Your task to perform on an android device: choose inbox layout in the gmail app Image 0: 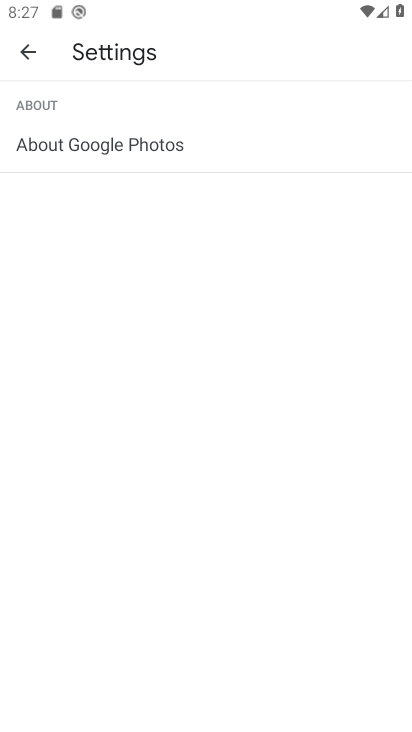
Step 0: press home button
Your task to perform on an android device: choose inbox layout in the gmail app Image 1: 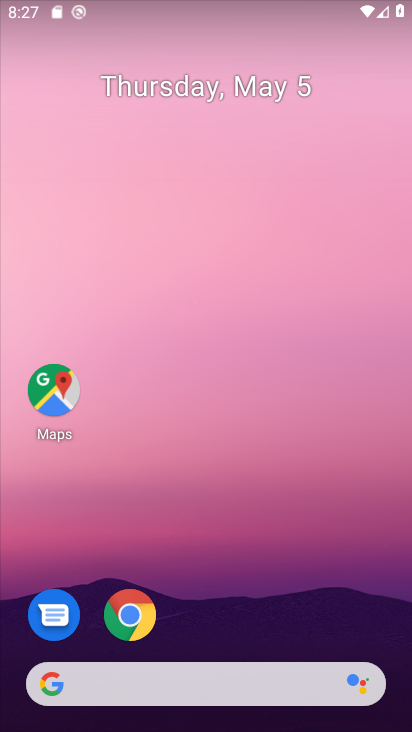
Step 1: drag from (194, 655) to (230, 314)
Your task to perform on an android device: choose inbox layout in the gmail app Image 2: 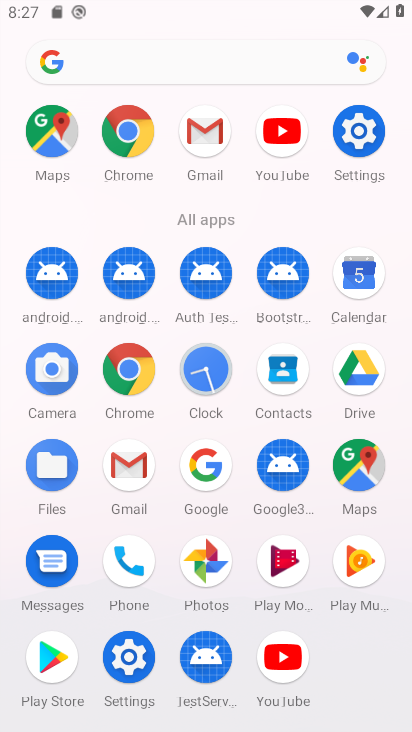
Step 2: click (207, 125)
Your task to perform on an android device: choose inbox layout in the gmail app Image 3: 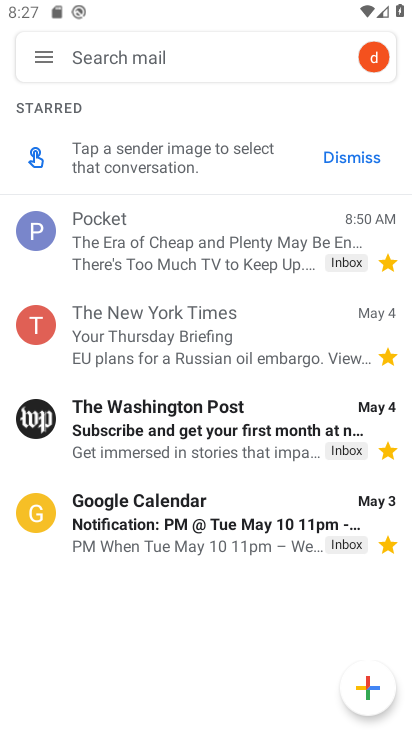
Step 3: click (39, 51)
Your task to perform on an android device: choose inbox layout in the gmail app Image 4: 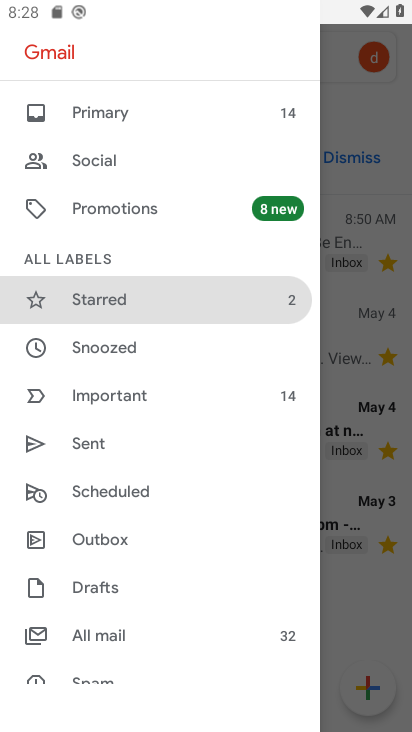
Step 4: drag from (106, 668) to (124, 256)
Your task to perform on an android device: choose inbox layout in the gmail app Image 5: 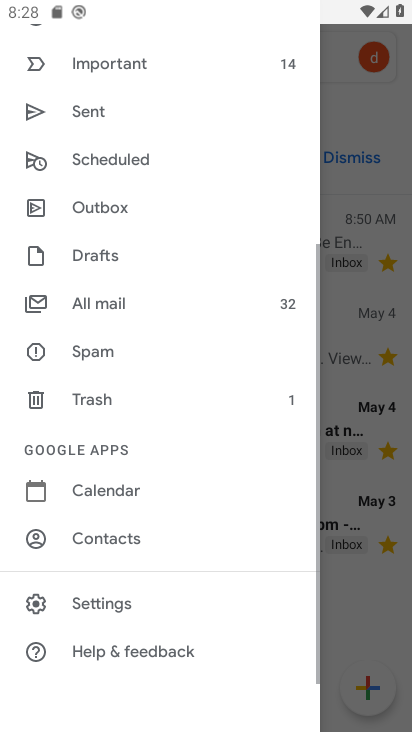
Step 5: click (100, 608)
Your task to perform on an android device: choose inbox layout in the gmail app Image 6: 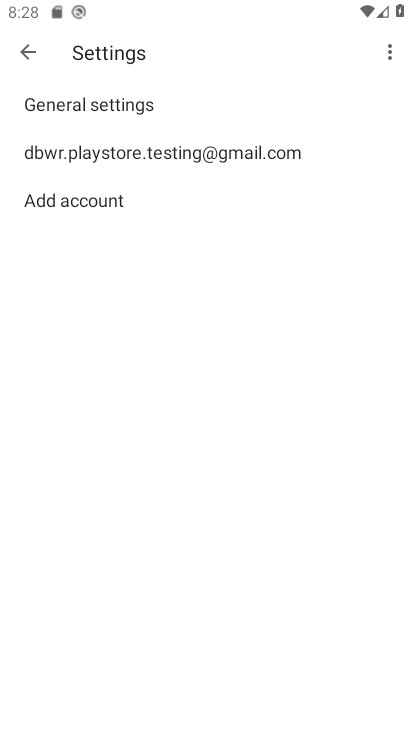
Step 6: click (67, 155)
Your task to perform on an android device: choose inbox layout in the gmail app Image 7: 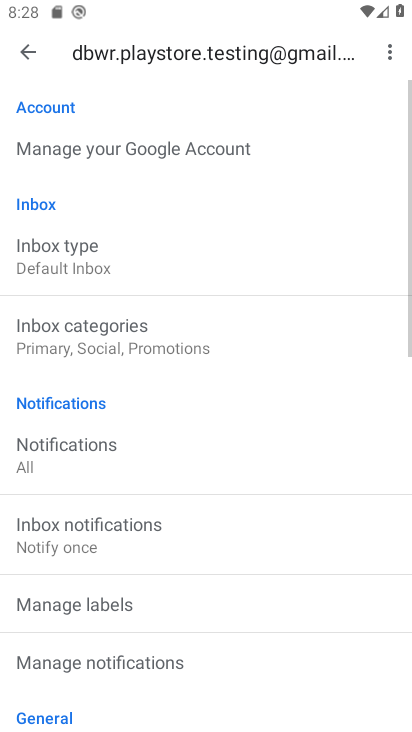
Step 7: click (83, 248)
Your task to perform on an android device: choose inbox layout in the gmail app Image 8: 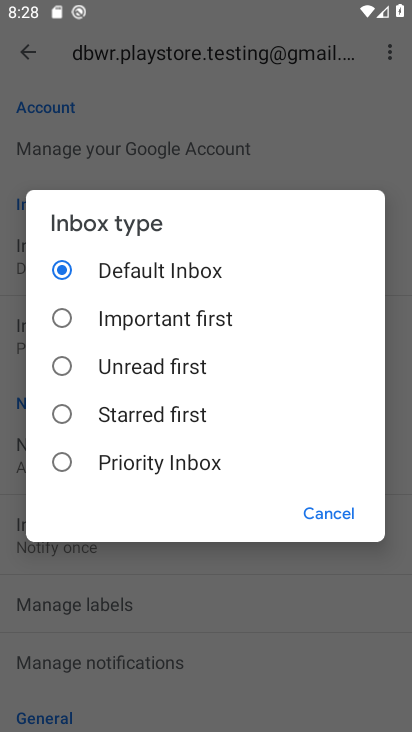
Step 8: click (64, 419)
Your task to perform on an android device: choose inbox layout in the gmail app Image 9: 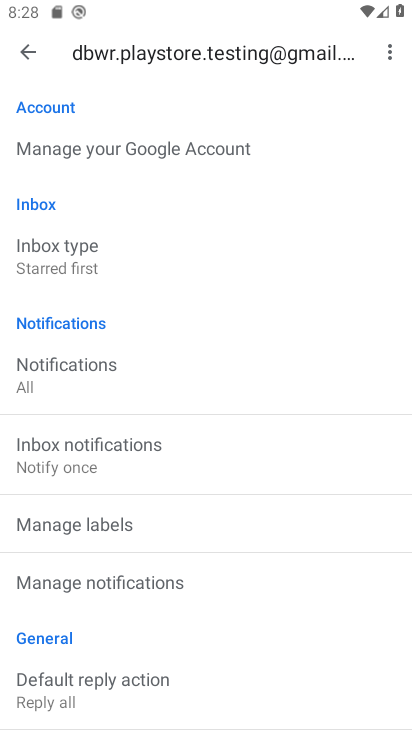
Step 9: task complete